Your task to perform on an android device: change keyboard looks Image 0: 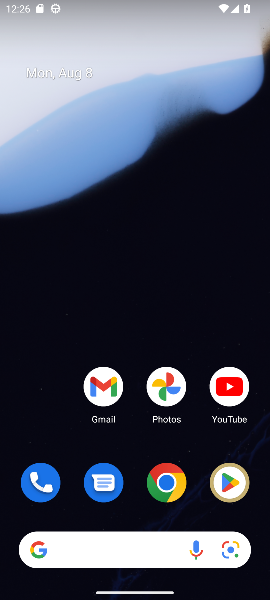
Step 0: drag from (123, 541) to (156, 212)
Your task to perform on an android device: change keyboard looks Image 1: 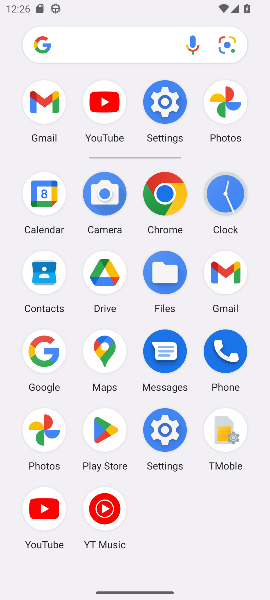
Step 1: click (168, 105)
Your task to perform on an android device: change keyboard looks Image 2: 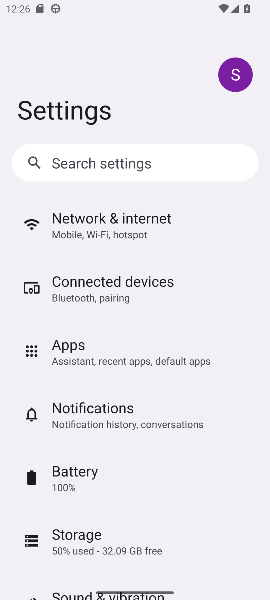
Step 2: click (205, 558)
Your task to perform on an android device: change keyboard looks Image 3: 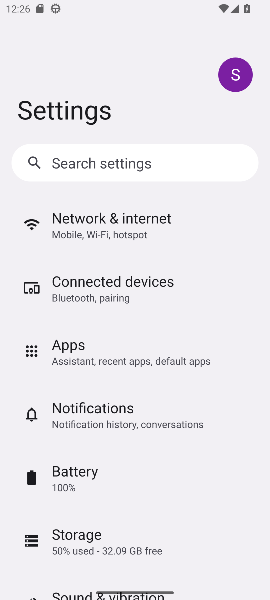
Step 3: drag from (205, 558) to (207, 108)
Your task to perform on an android device: change keyboard looks Image 4: 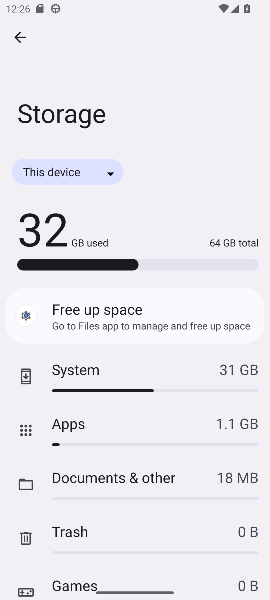
Step 4: press back button
Your task to perform on an android device: change keyboard looks Image 5: 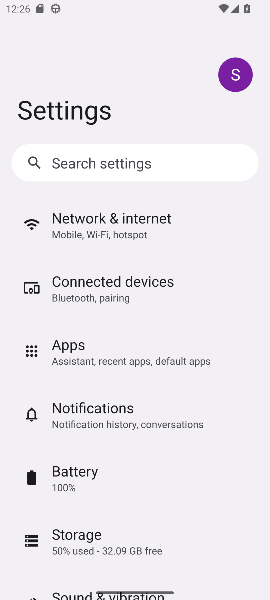
Step 5: drag from (197, 543) to (231, 113)
Your task to perform on an android device: change keyboard looks Image 6: 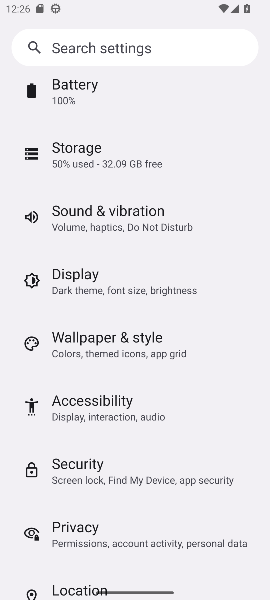
Step 6: drag from (227, 570) to (218, 66)
Your task to perform on an android device: change keyboard looks Image 7: 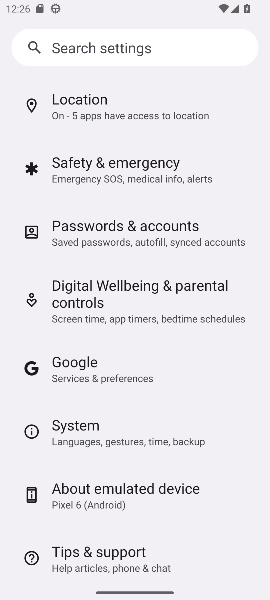
Step 7: click (155, 433)
Your task to perform on an android device: change keyboard looks Image 8: 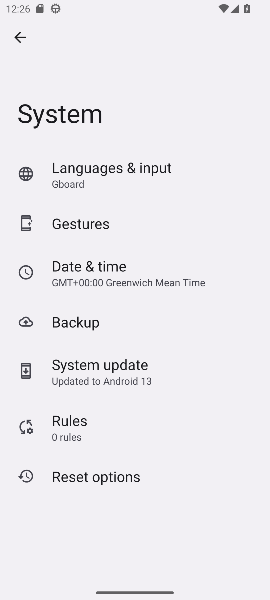
Step 8: click (127, 177)
Your task to perform on an android device: change keyboard looks Image 9: 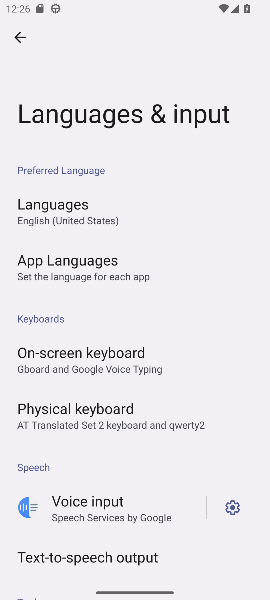
Step 9: click (95, 203)
Your task to perform on an android device: change keyboard looks Image 10: 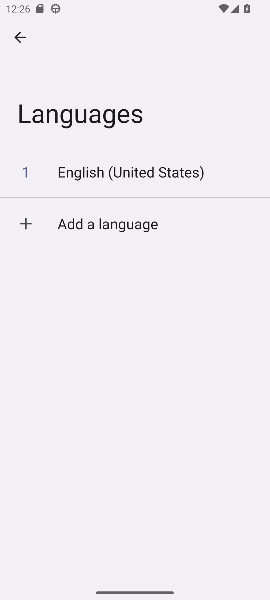
Step 10: press back button
Your task to perform on an android device: change keyboard looks Image 11: 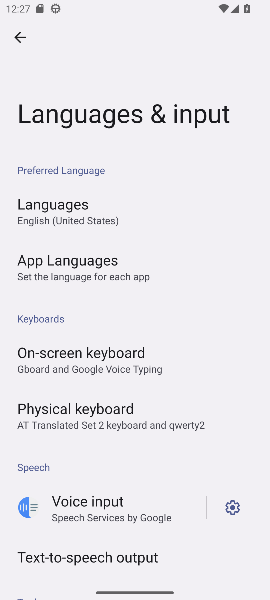
Step 11: click (130, 353)
Your task to perform on an android device: change keyboard looks Image 12: 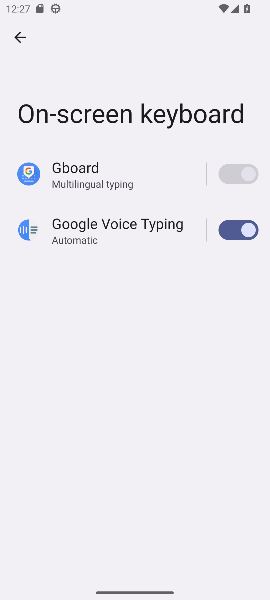
Step 12: click (119, 175)
Your task to perform on an android device: change keyboard looks Image 13: 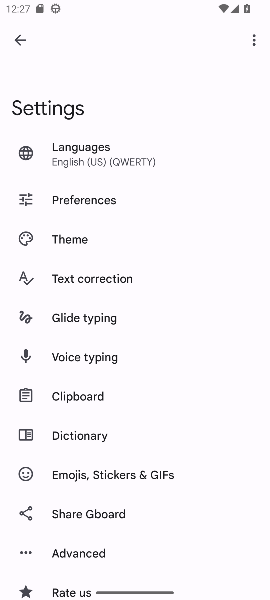
Step 13: click (61, 242)
Your task to perform on an android device: change keyboard looks Image 14: 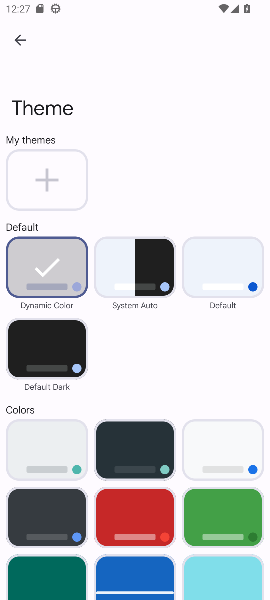
Step 14: click (138, 458)
Your task to perform on an android device: change keyboard looks Image 15: 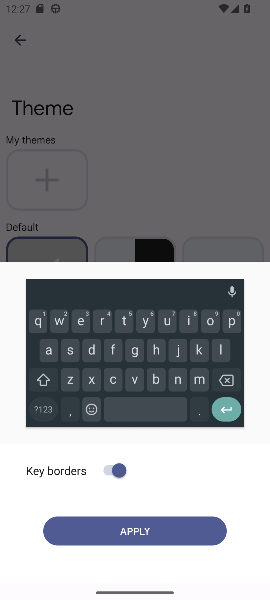
Step 15: click (121, 535)
Your task to perform on an android device: change keyboard looks Image 16: 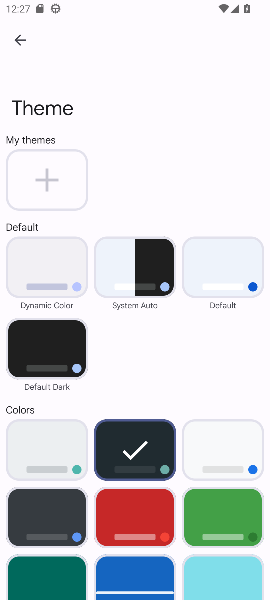
Step 16: task complete